Your task to perform on an android device: turn pop-ups on in chrome Image 0: 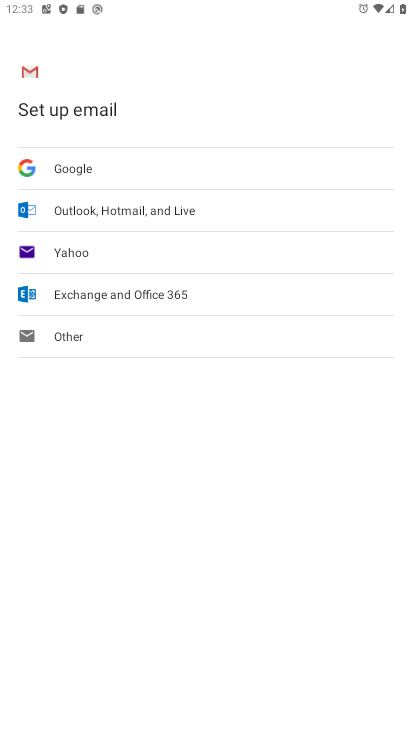
Step 0: press home button
Your task to perform on an android device: turn pop-ups on in chrome Image 1: 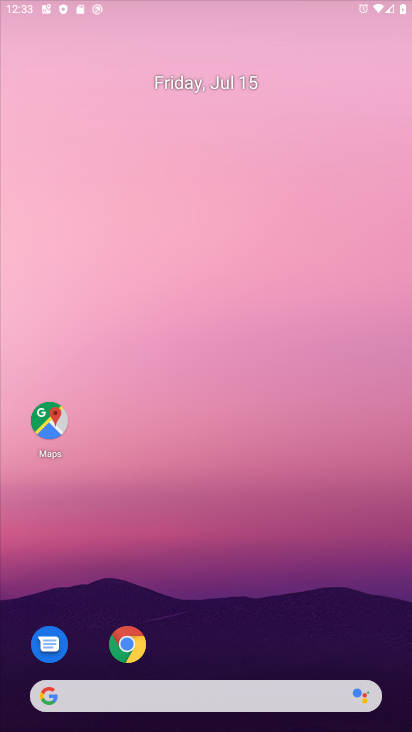
Step 1: drag from (406, 671) to (221, 25)
Your task to perform on an android device: turn pop-ups on in chrome Image 2: 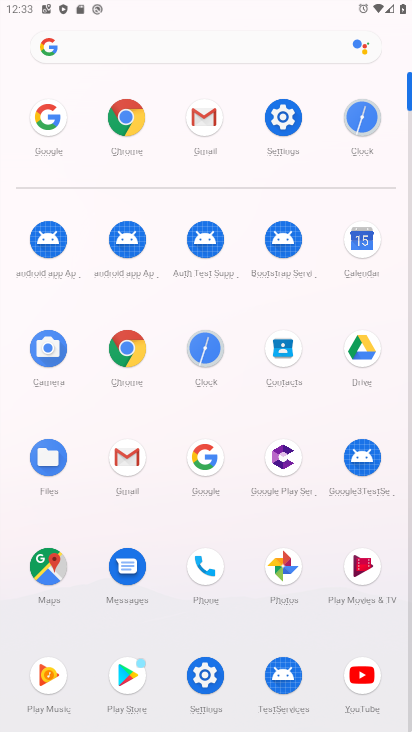
Step 2: click (139, 343)
Your task to perform on an android device: turn pop-ups on in chrome Image 3: 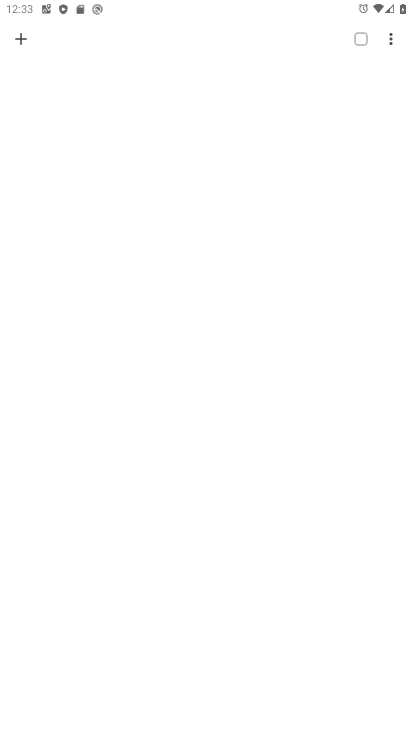
Step 3: click (391, 33)
Your task to perform on an android device: turn pop-ups on in chrome Image 4: 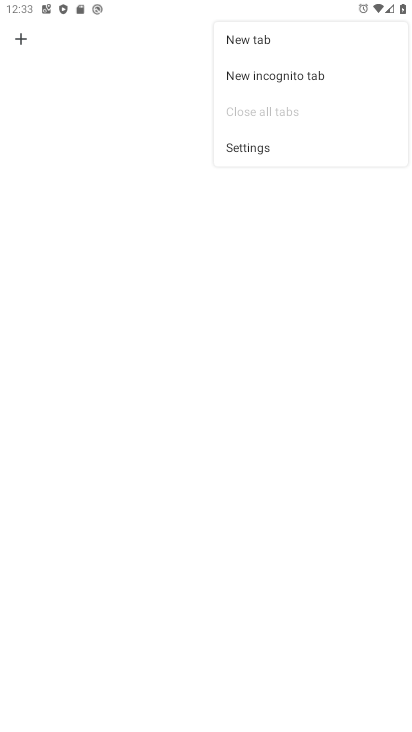
Step 4: click (231, 152)
Your task to perform on an android device: turn pop-ups on in chrome Image 5: 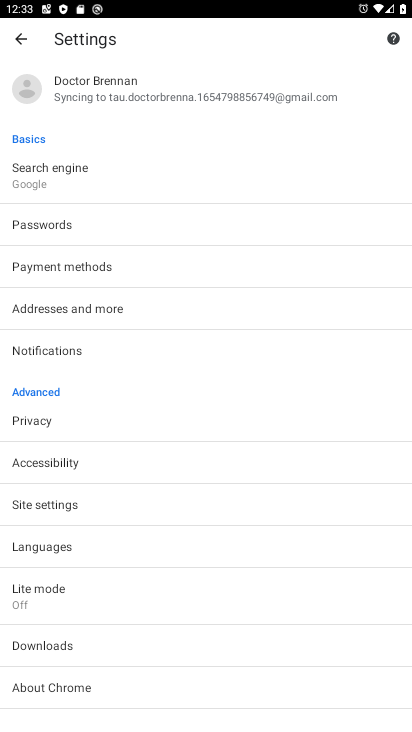
Step 5: click (97, 501)
Your task to perform on an android device: turn pop-ups on in chrome Image 6: 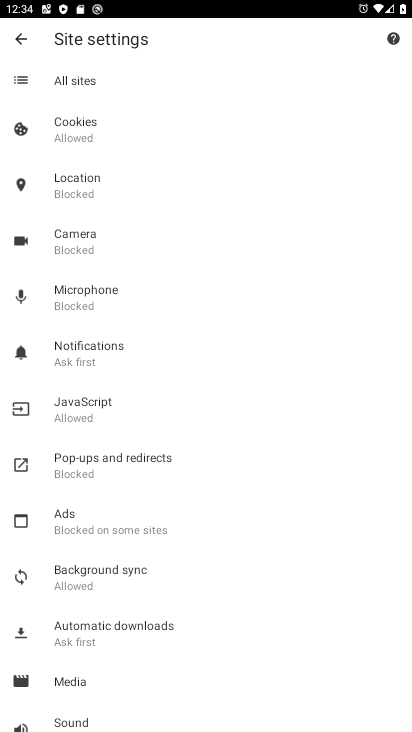
Step 6: click (108, 481)
Your task to perform on an android device: turn pop-ups on in chrome Image 7: 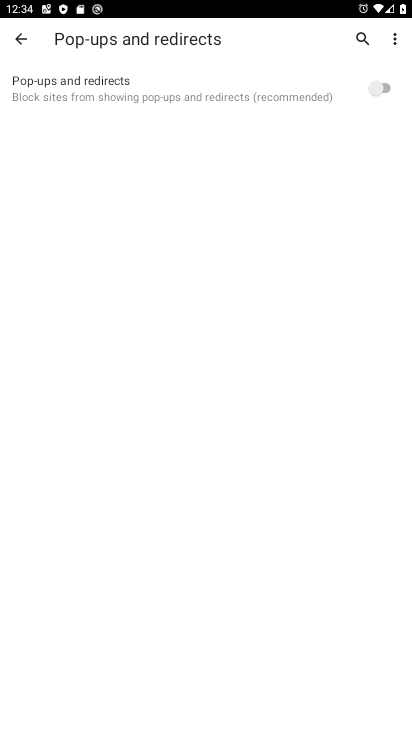
Step 7: click (375, 82)
Your task to perform on an android device: turn pop-ups on in chrome Image 8: 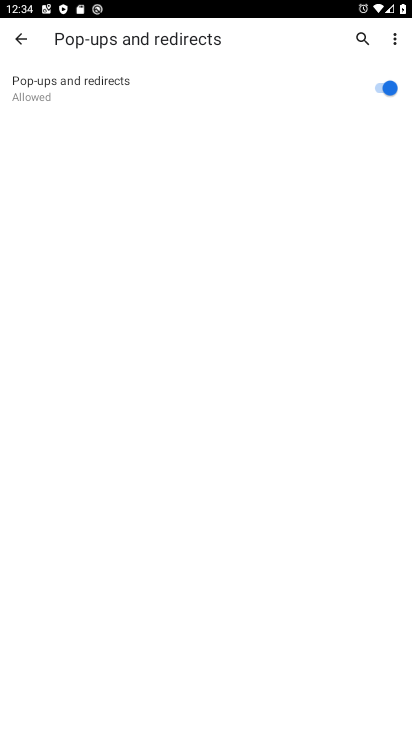
Step 8: task complete